Your task to perform on an android device: turn on the 24-hour format for clock Image 0: 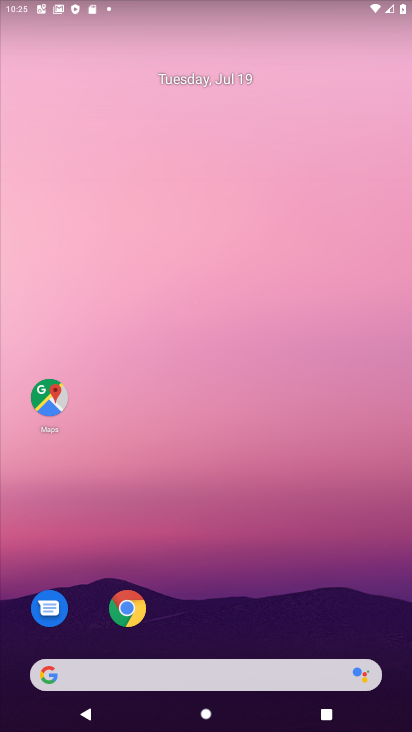
Step 0: drag from (341, 582) to (287, 64)
Your task to perform on an android device: turn on the 24-hour format for clock Image 1: 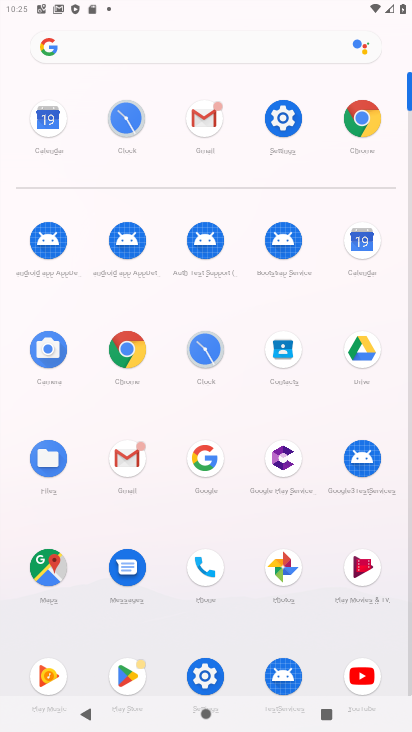
Step 1: click (217, 358)
Your task to perform on an android device: turn on the 24-hour format for clock Image 2: 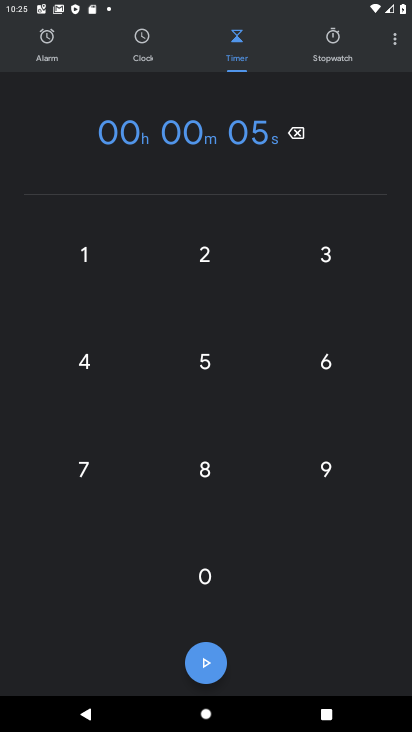
Step 2: click (398, 37)
Your task to perform on an android device: turn on the 24-hour format for clock Image 3: 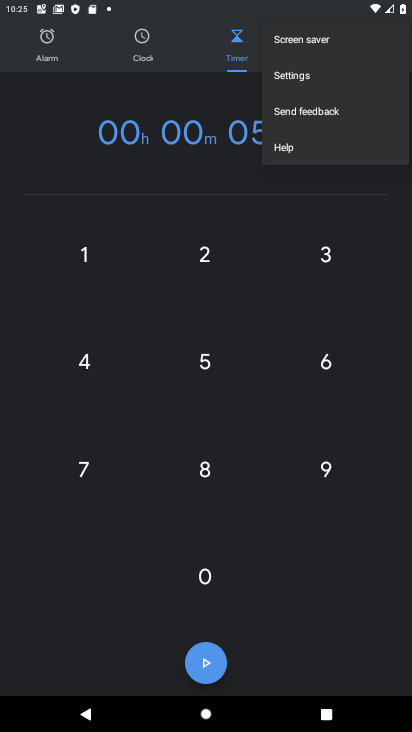
Step 3: click (307, 70)
Your task to perform on an android device: turn on the 24-hour format for clock Image 4: 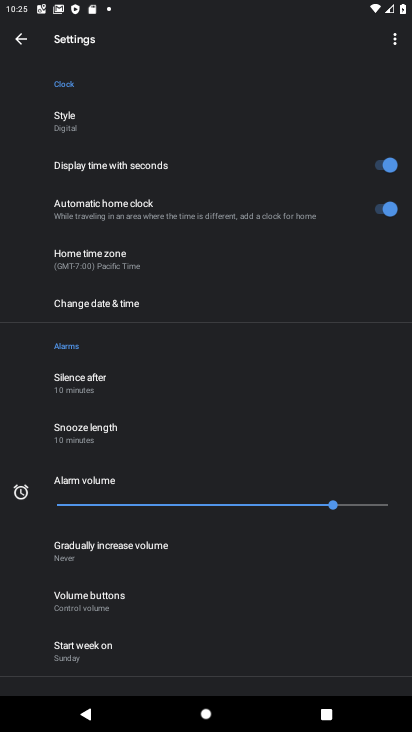
Step 4: click (115, 303)
Your task to perform on an android device: turn on the 24-hour format for clock Image 5: 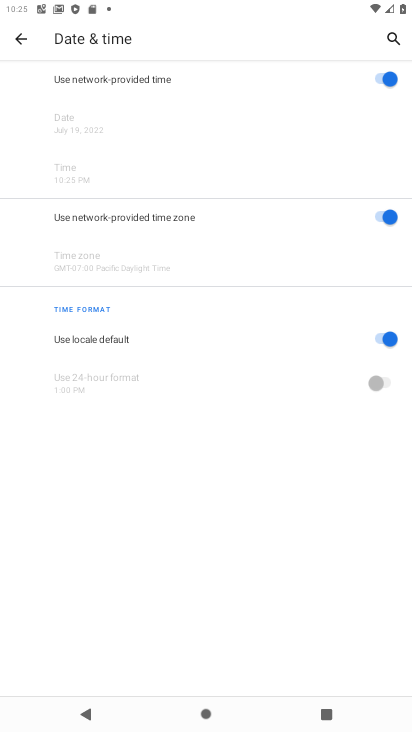
Step 5: click (374, 385)
Your task to perform on an android device: turn on the 24-hour format for clock Image 6: 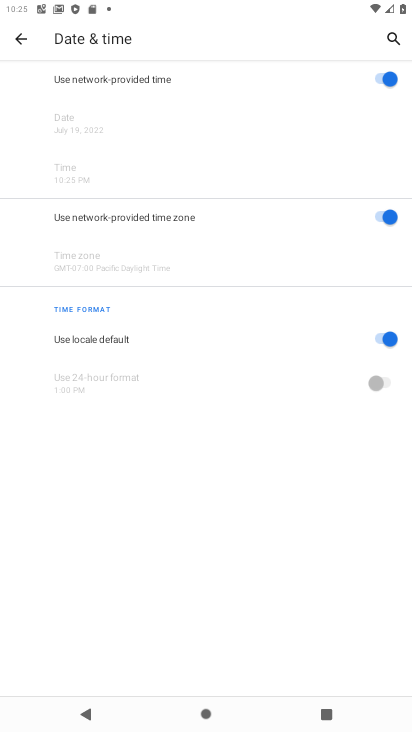
Step 6: click (371, 330)
Your task to perform on an android device: turn on the 24-hour format for clock Image 7: 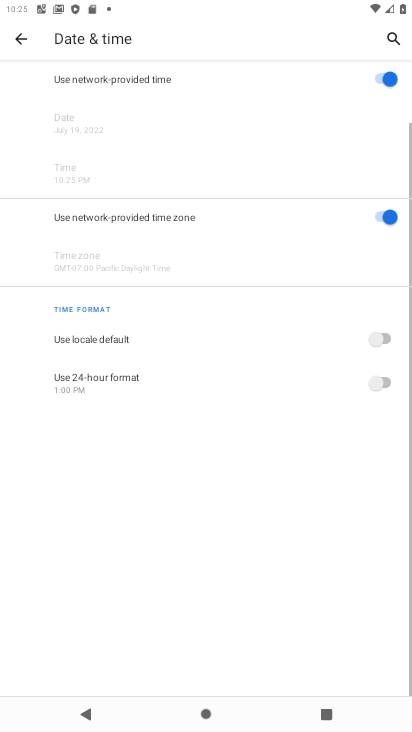
Step 7: click (386, 389)
Your task to perform on an android device: turn on the 24-hour format for clock Image 8: 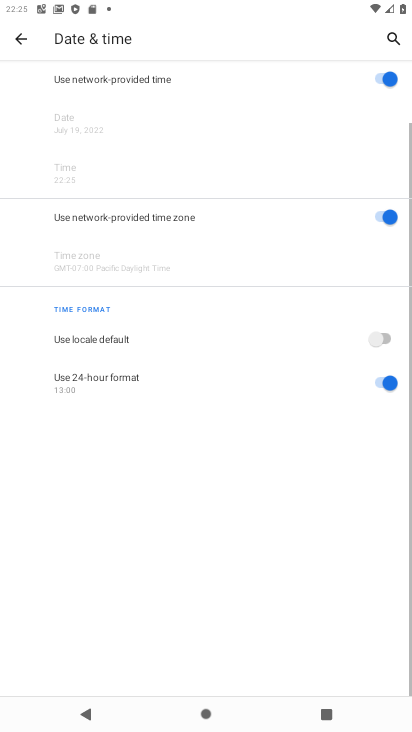
Step 8: task complete